Your task to perform on an android device: toggle notifications settings in the gmail app Image 0: 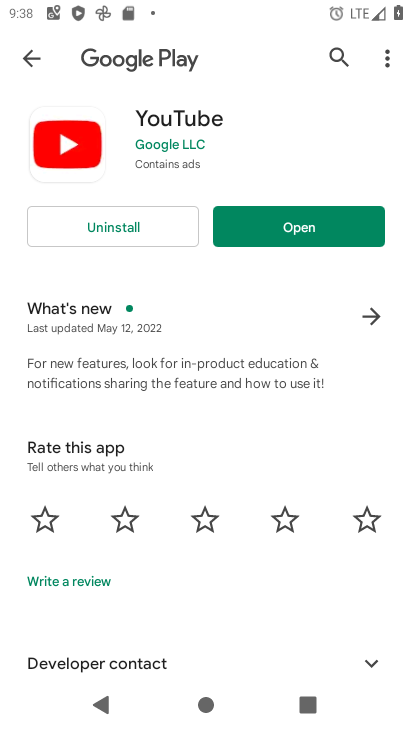
Step 0: press home button
Your task to perform on an android device: toggle notifications settings in the gmail app Image 1: 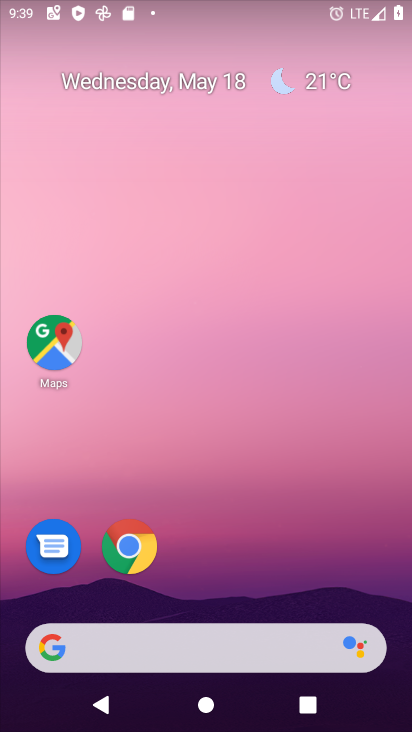
Step 1: drag from (390, 643) to (365, 61)
Your task to perform on an android device: toggle notifications settings in the gmail app Image 2: 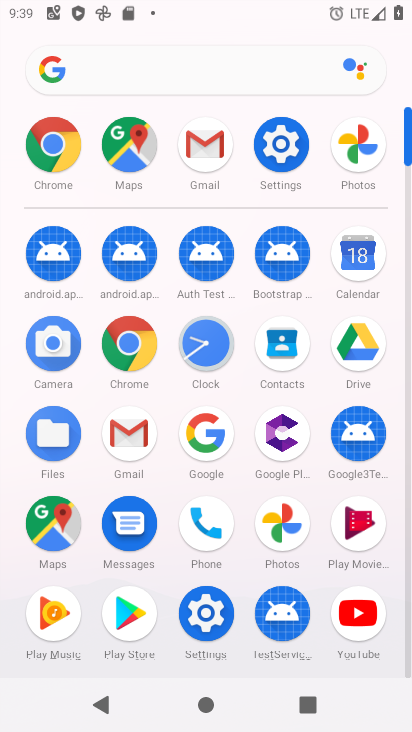
Step 2: click (121, 445)
Your task to perform on an android device: toggle notifications settings in the gmail app Image 3: 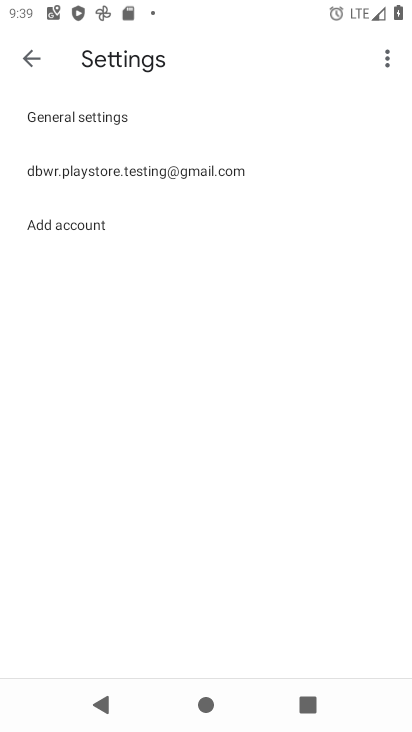
Step 3: click (124, 191)
Your task to perform on an android device: toggle notifications settings in the gmail app Image 4: 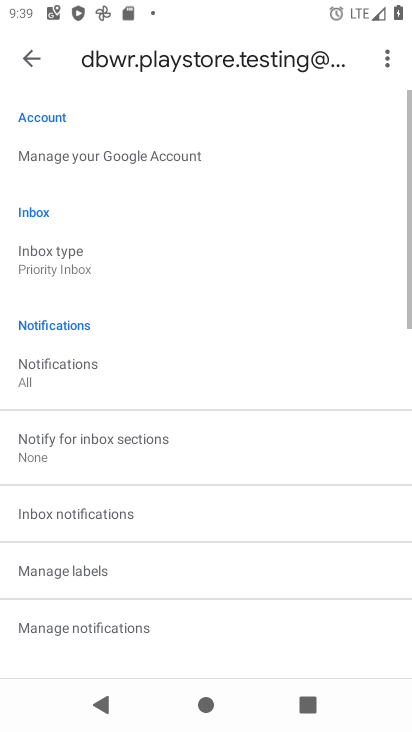
Step 4: click (88, 399)
Your task to perform on an android device: toggle notifications settings in the gmail app Image 5: 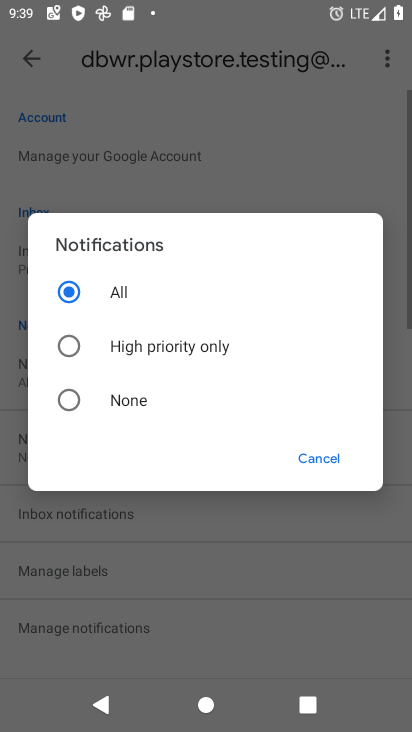
Step 5: click (88, 399)
Your task to perform on an android device: toggle notifications settings in the gmail app Image 6: 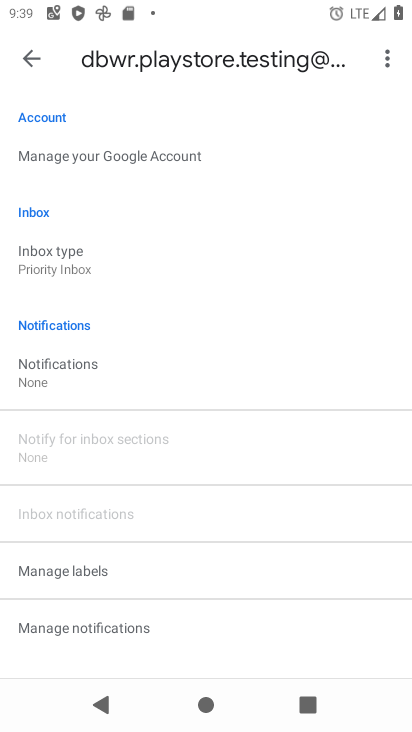
Step 6: task complete